Your task to perform on an android device: Open the web browser Image 0: 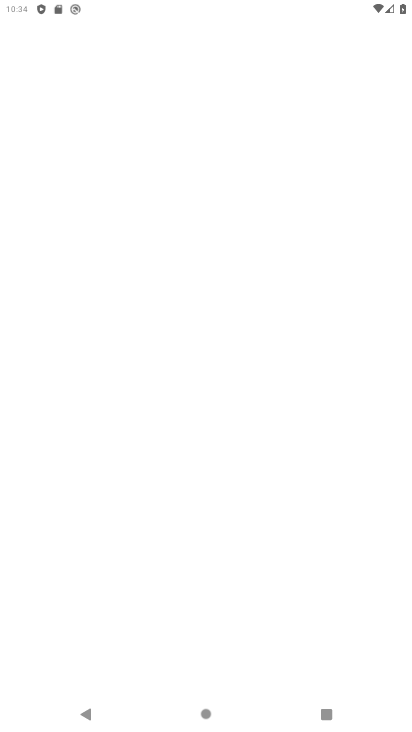
Step 0: press home button
Your task to perform on an android device: Open the web browser Image 1: 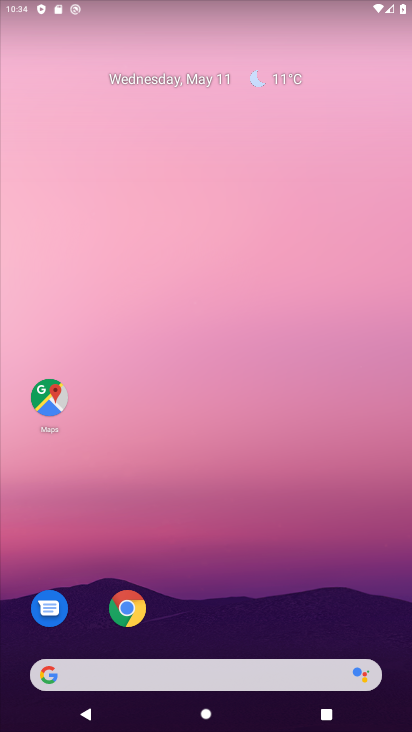
Step 1: click (137, 604)
Your task to perform on an android device: Open the web browser Image 2: 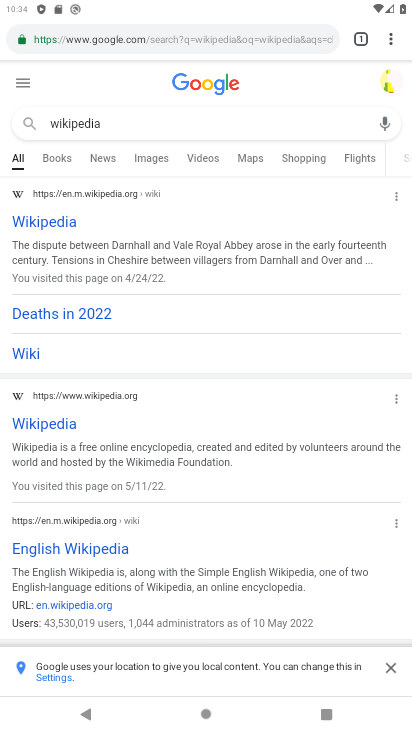
Step 2: click (117, 42)
Your task to perform on an android device: Open the web browser Image 3: 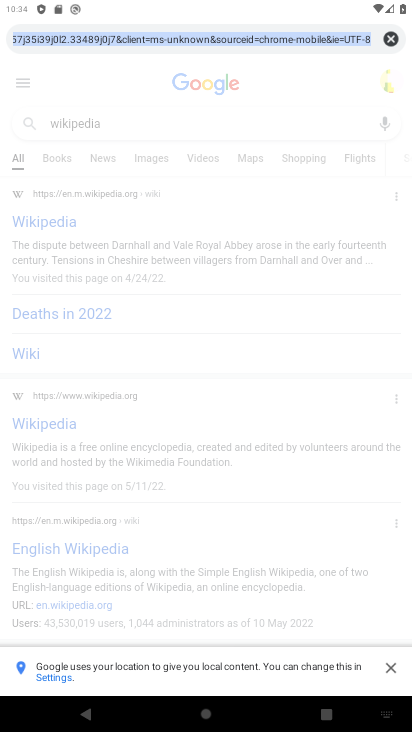
Step 3: task complete